Your task to perform on an android device: change the upload size in google photos Image 0: 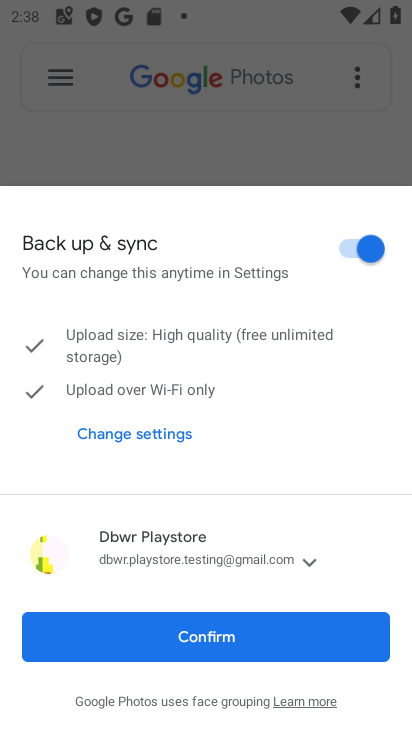
Step 0: press home button
Your task to perform on an android device: change the upload size in google photos Image 1: 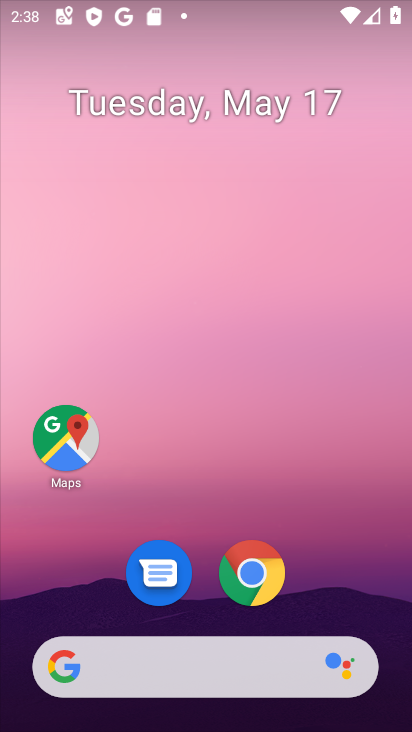
Step 1: drag from (383, 461) to (383, 192)
Your task to perform on an android device: change the upload size in google photos Image 2: 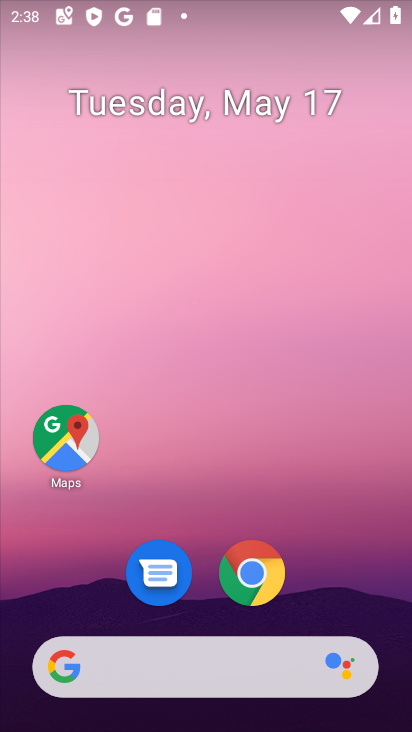
Step 2: drag from (351, 579) to (324, 199)
Your task to perform on an android device: change the upload size in google photos Image 3: 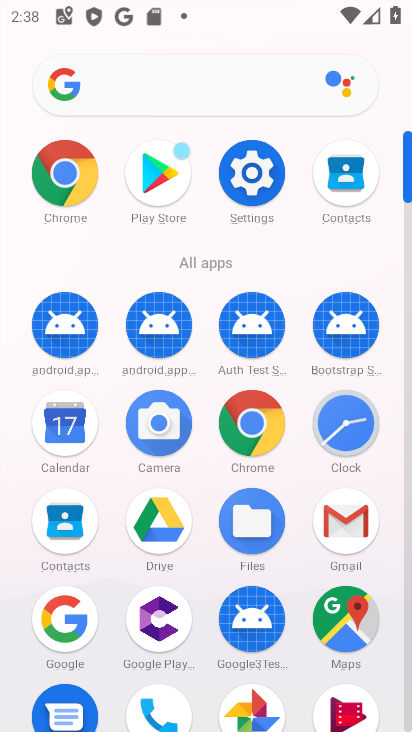
Step 3: click (255, 712)
Your task to perform on an android device: change the upload size in google photos Image 4: 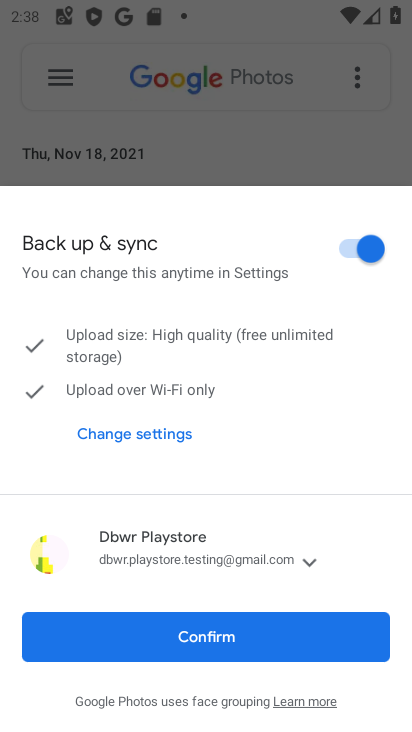
Step 4: click (273, 643)
Your task to perform on an android device: change the upload size in google photos Image 5: 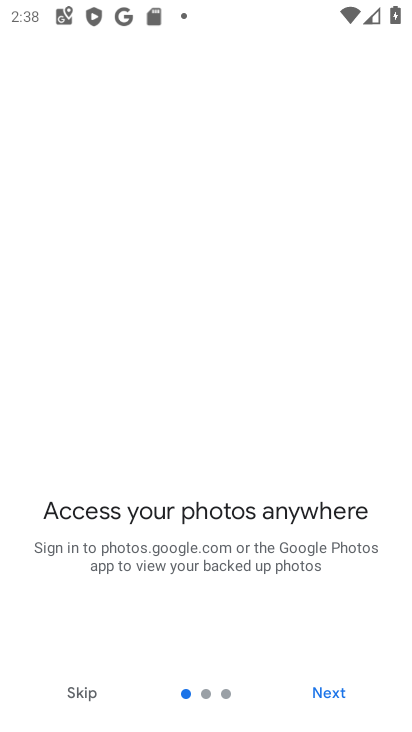
Step 5: click (325, 690)
Your task to perform on an android device: change the upload size in google photos Image 6: 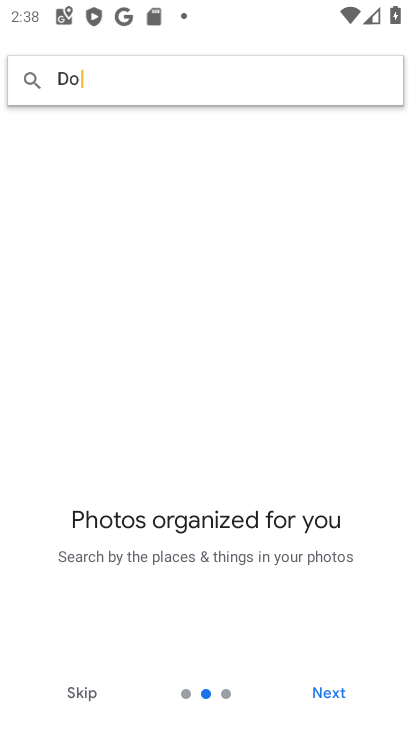
Step 6: click (324, 690)
Your task to perform on an android device: change the upload size in google photos Image 7: 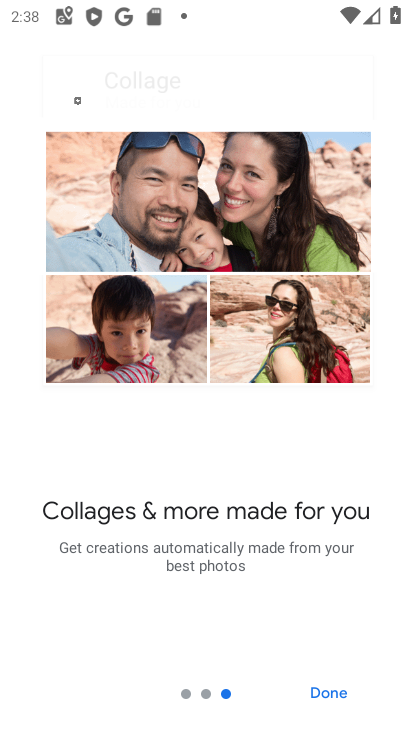
Step 7: click (319, 700)
Your task to perform on an android device: change the upload size in google photos Image 8: 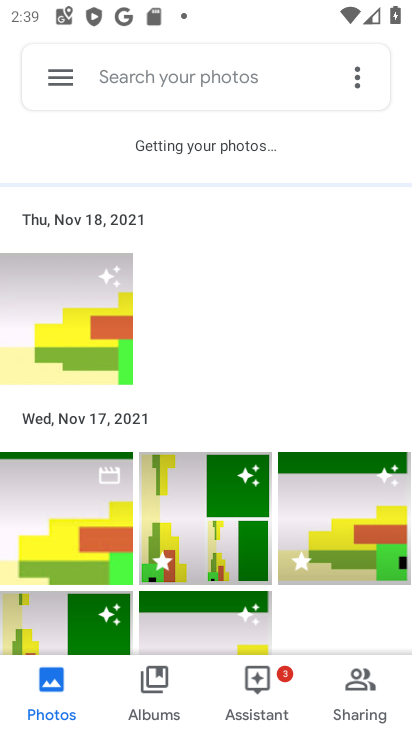
Step 8: click (55, 88)
Your task to perform on an android device: change the upload size in google photos Image 9: 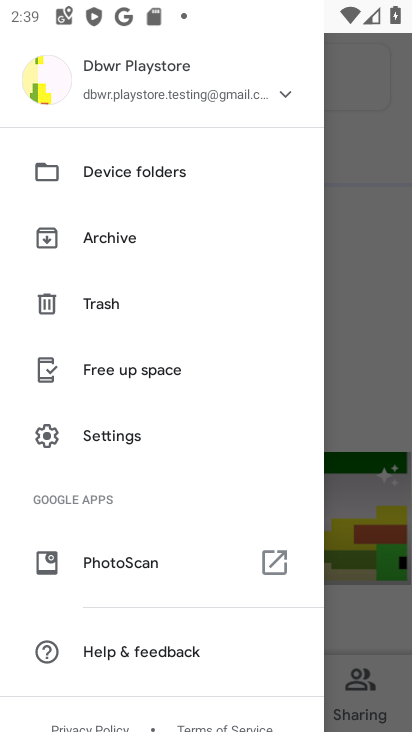
Step 9: click (145, 444)
Your task to perform on an android device: change the upload size in google photos Image 10: 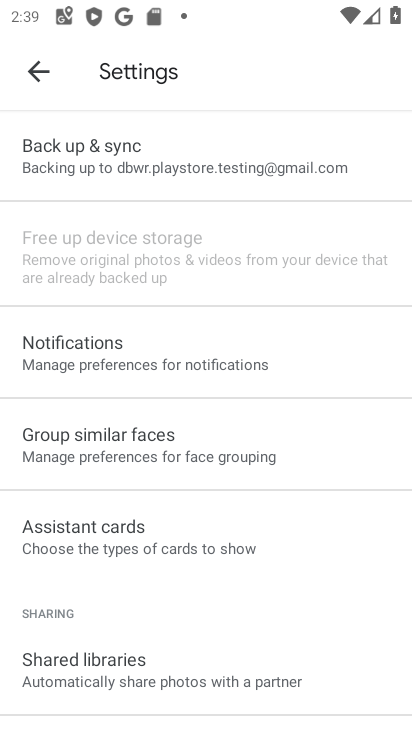
Step 10: click (155, 178)
Your task to perform on an android device: change the upload size in google photos Image 11: 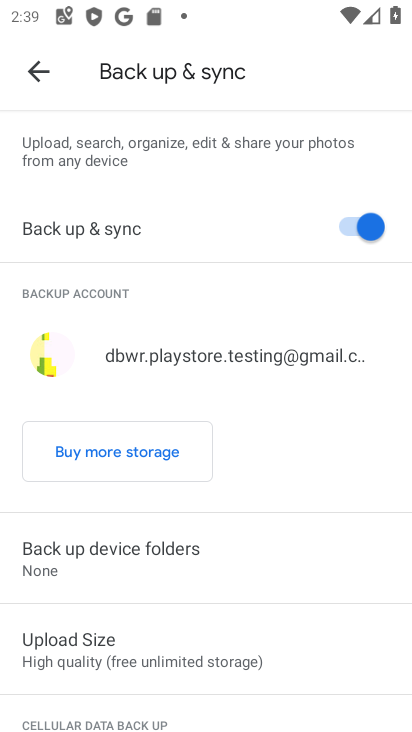
Step 11: click (162, 639)
Your task to perform on an android device: change the upload size in google photos Image 12: 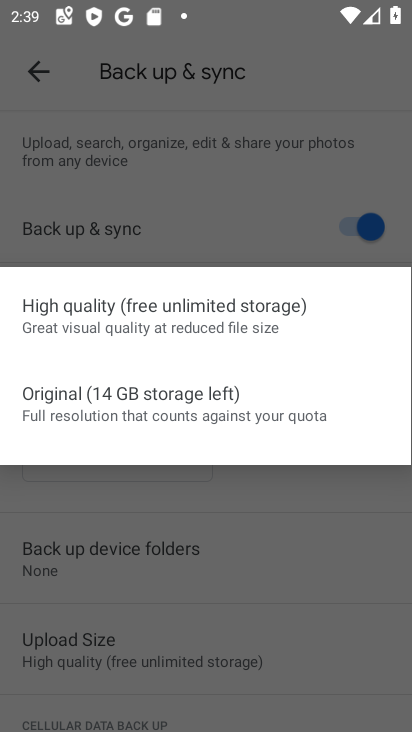
Step 12: click (112, 290)
Your task to perform on an android device: change the upload size in google photos Image 13: 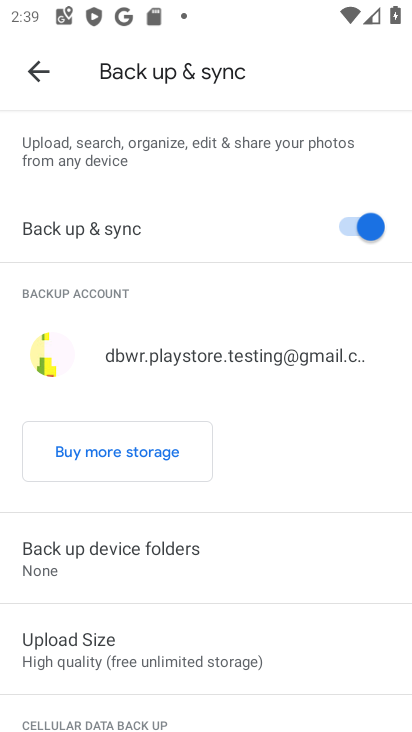
Step 13: task complete